Your task to perform on an android device: Open Google Chrome Image 0: 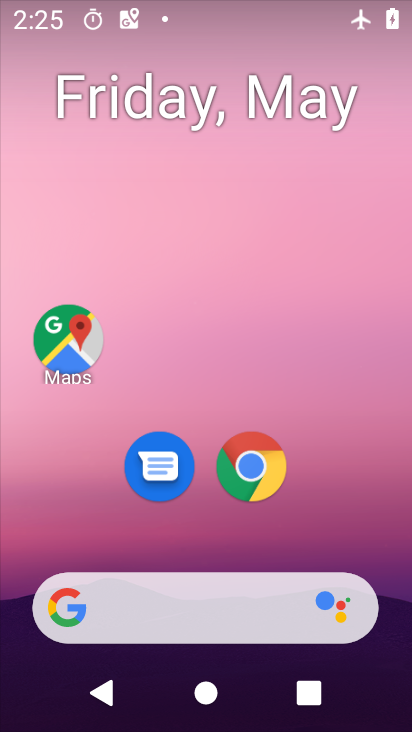
Step 0: drag from (359, 551) to (354, 17)
Your task to perform on an android device: Open Google Chrome Image 1: 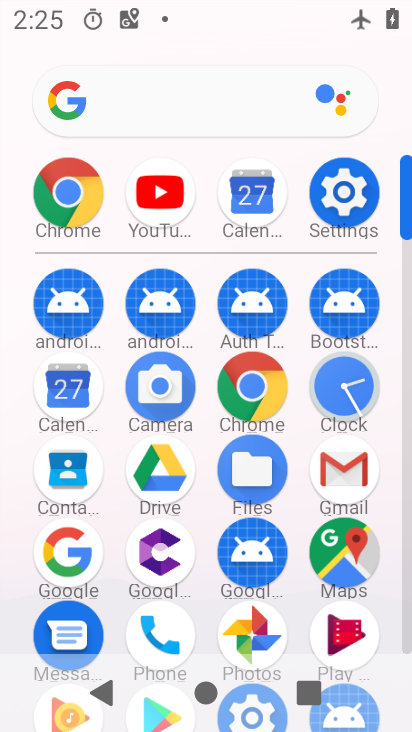
Step 1: click (55, 208)
Your task to perform on an android device: Open Google Chrome Image 2: 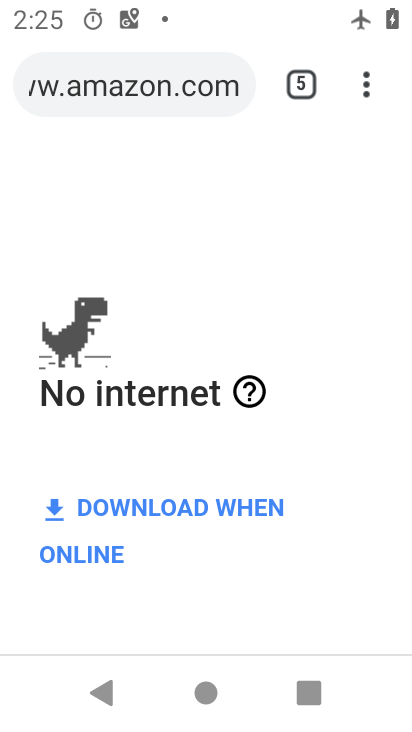
Step 2: task complete